Your task to perform on an android device: Open Amazon Image 0: 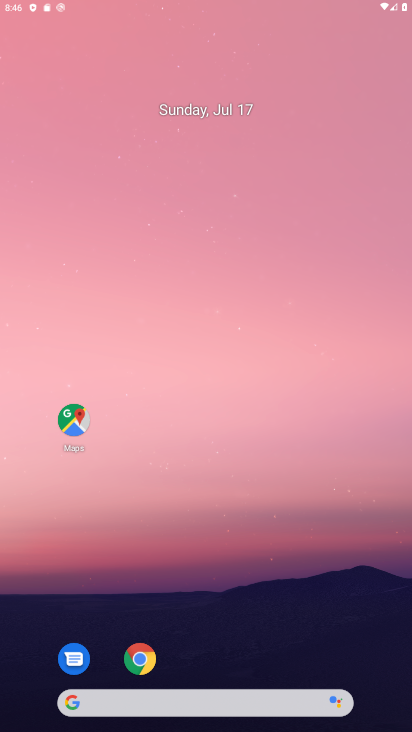
Step 0: click (144, 655)
Your task to perform on an android device: Open Amazon Image 1: 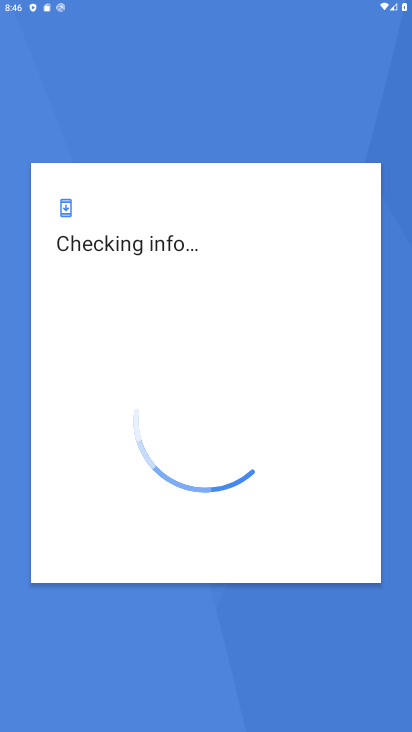
Step 1: press home button
Your task to perform on an android device: Open Amazon Image 2: 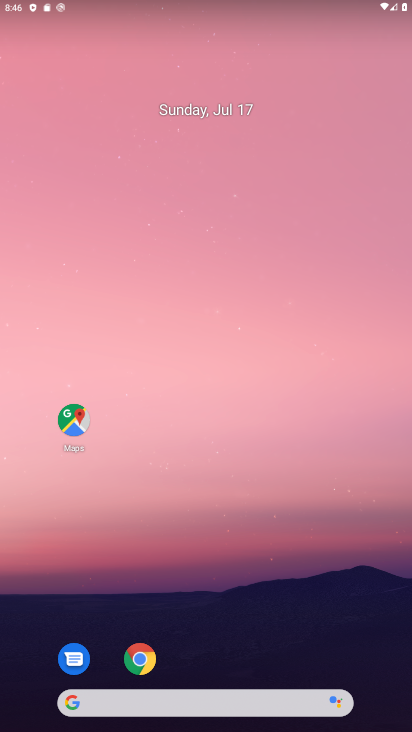
Step 2: click (148, 659)
Your task to perform on an android device: Open Amazon Image 3: 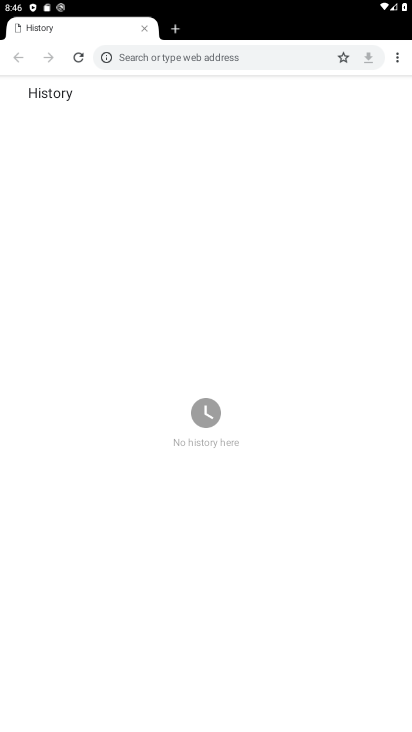
Step 3: click (398, 56)
Your task to perform on an android device: Open Amazon Image 4: 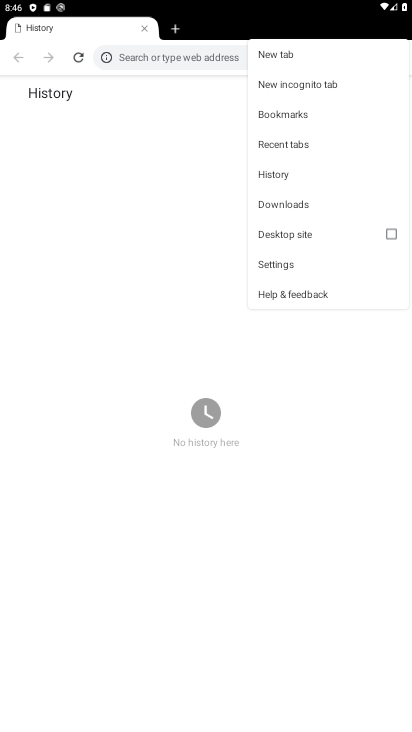
Step 4: click (272, 42)
Your task to perform on an android device: Open Amazon Image 5: 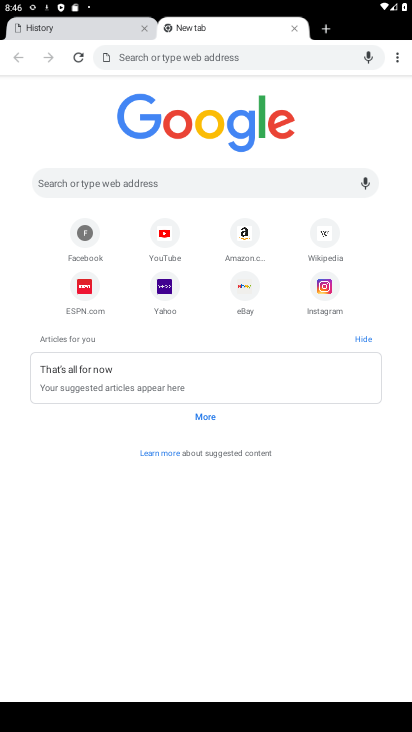
Step 5: click (236, 226)
Your task to perform on an android device: Open Amazon Image 6: 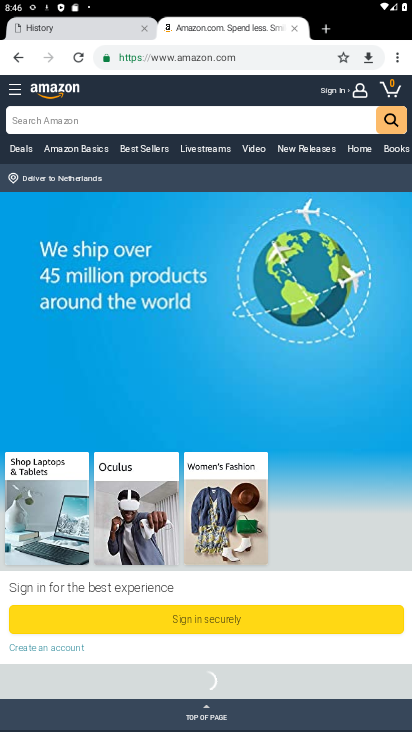
Step 6: task complete